Your task to perform on an android device: Do I have any events today? Image 0: 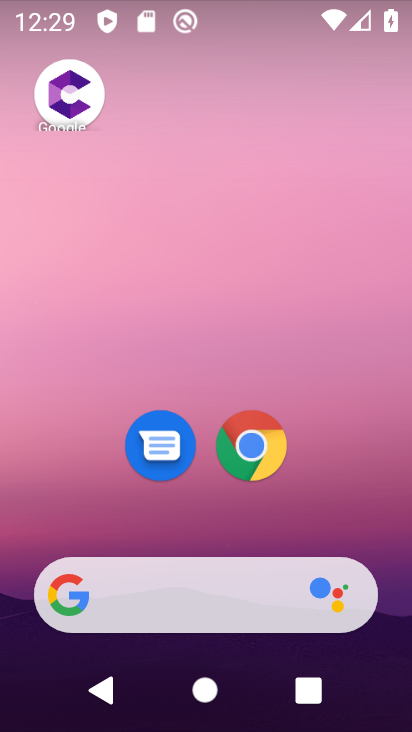
Step 0: drag from (370, 521) to (334, 104)
Your task to perform on an android device: Do I have any events today? Image 1: 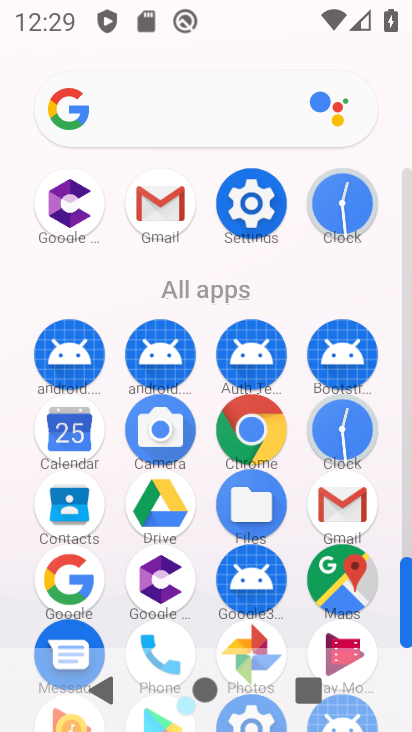
Step 1: click (76, 442)
Your task to perform on an android device: Do I have any events today? Image 2: 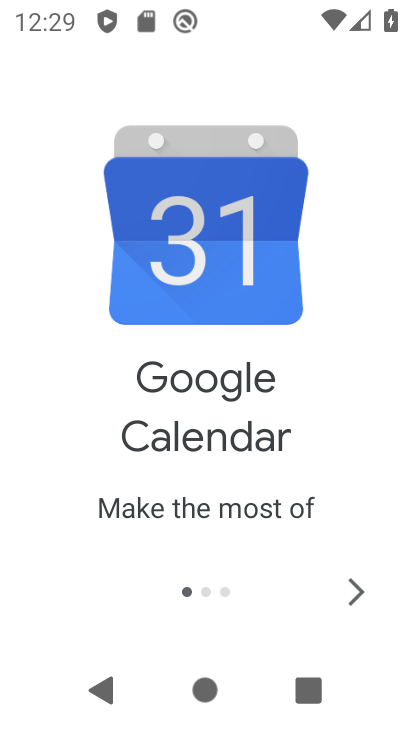
Step 2: click (355, 590)
Your task to perform on an android device: Do I have any events today? Image 3: 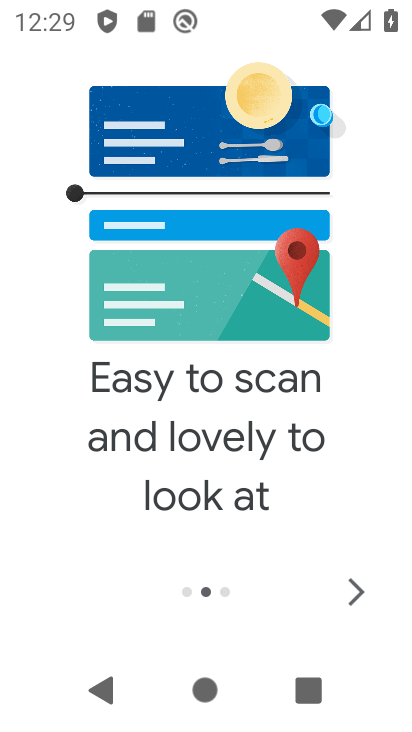
Step 3: click (355, 590)
Your task to perform on an android device: Do I have any events today? Image 4: 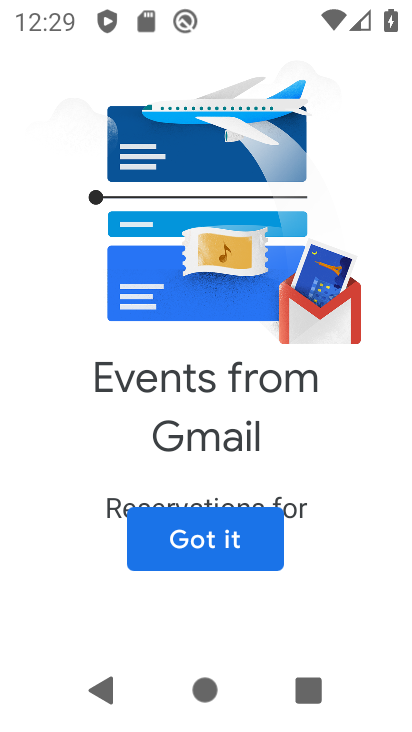
Step 4: click (245, 548)
Your task to perform on an android device: Do I have any events today? Image 5: 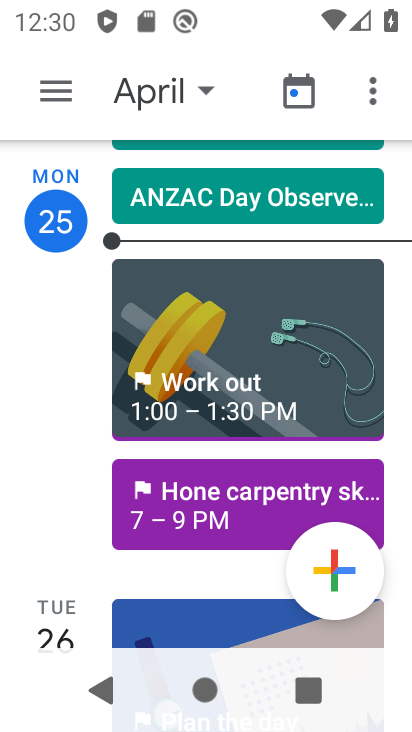
Step 5: click (223, 379)
Your task to perform on an android device: Do I have any events today? Image 6: 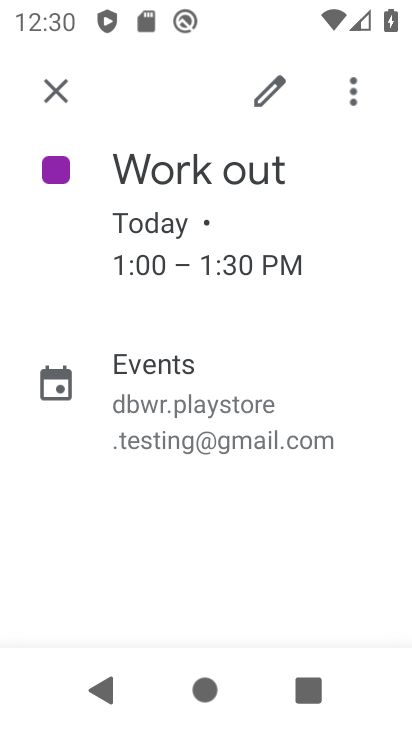
Step 6: task complete